Your task to perform on an android device: change the clock display to show seconds Image 0: 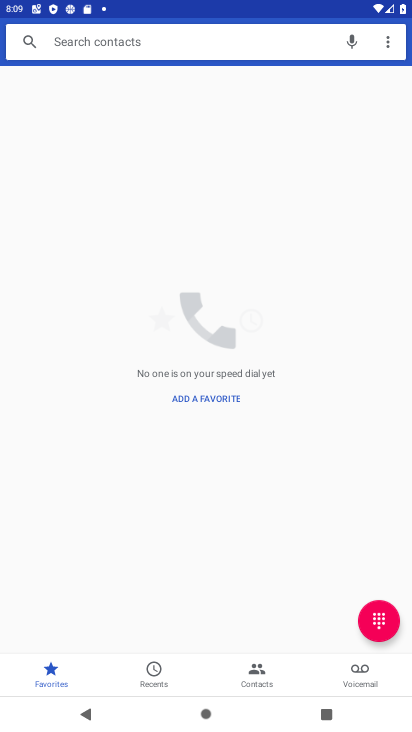
Step 0: press home button
Your task to perform on an android device: change the clock display to show seconds Image 1: 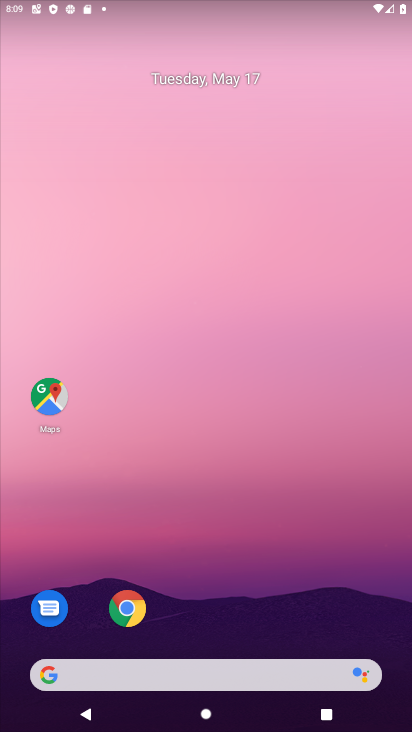
Step 1: drag from (239, 631) to (247, 109)
Your task to perform on an android device: change the clock display to show seconds Image 2: 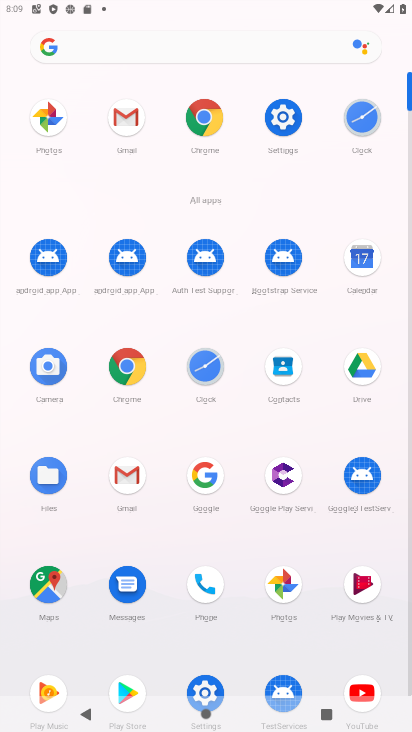
Step 2: click (357, 124)
Your task to perform on an android device: change the clock display to show seconds Image 3: 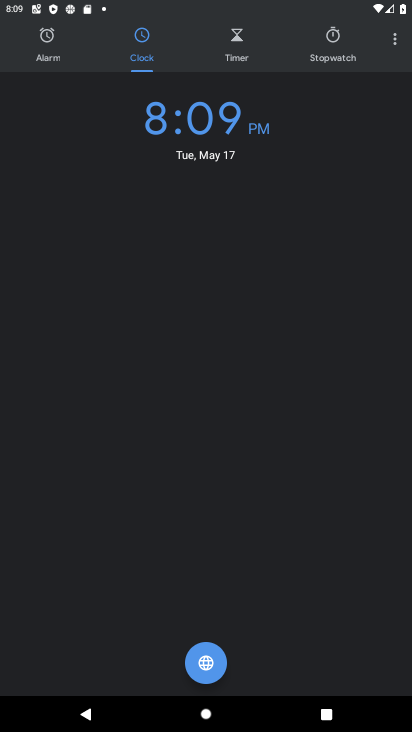
Step 3: click (383, 45)
Your task to perform on an android device: change the clock display to show seconds Image 4: 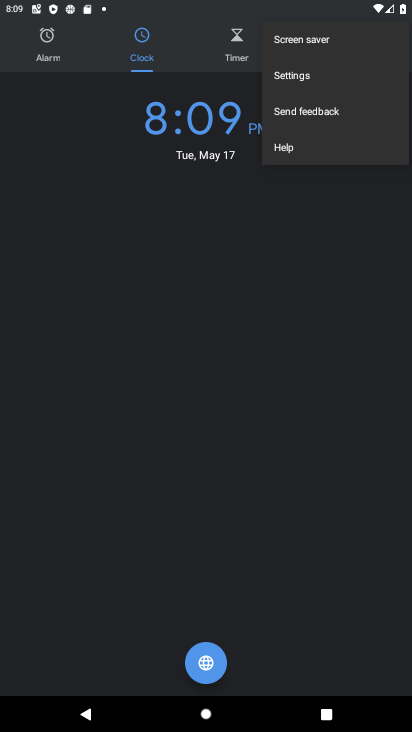
Step 4: click (337, 83)
Your task to perform on an android device: change the clock display to show seconds Image 5: 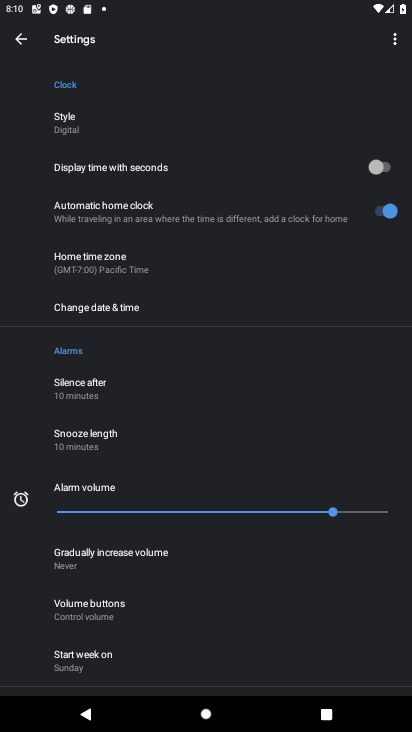
Step 5: click (376, 173)
Your task to perform on an android device: change the clock display to show seconds Image 6: 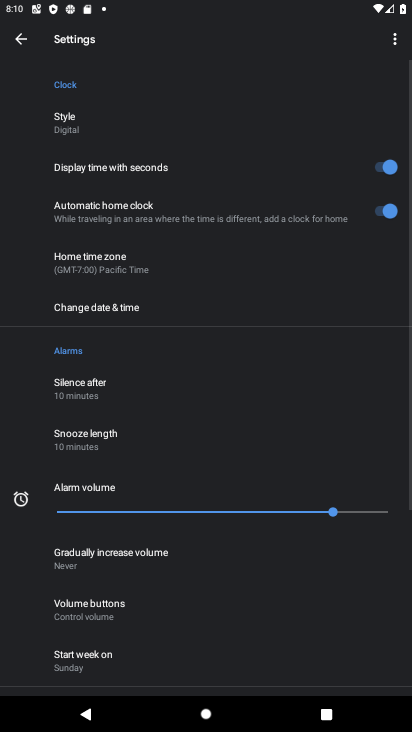
Step 6: task complete